Your task to perform on an android device: Open the Play Movies app and select the watchlist tab. Image 0: 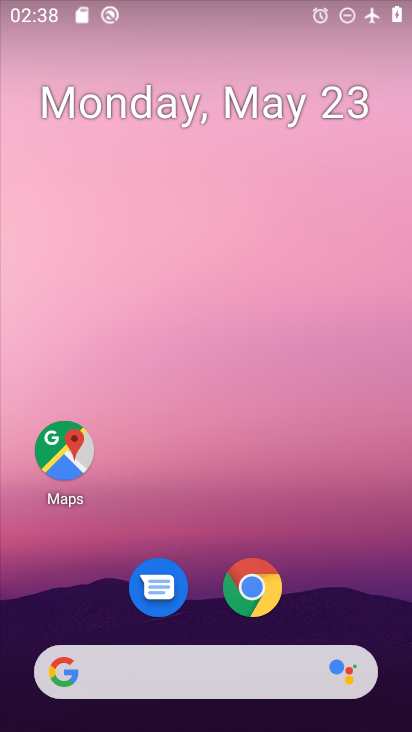
Step 0: drag from (344, 594) to (341, 31)
Your task to perform on an android device: Open the Play Movies app and select the watchlist tab. Image 1: 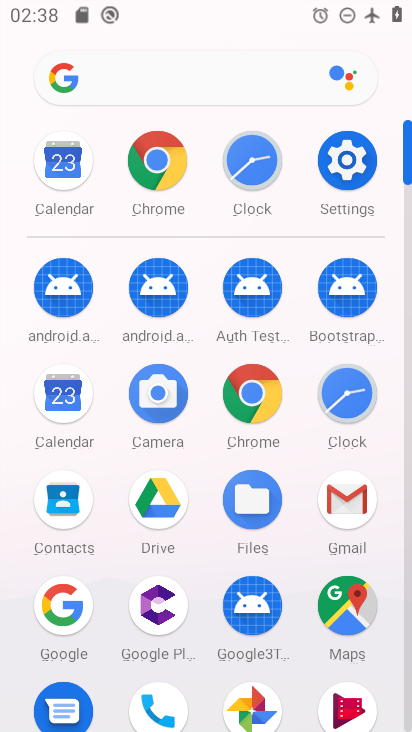
Step 1: click (350, 693)
Your task to perform on an android device: Open the Play Movies app and select the watchlist tab. Image 2: 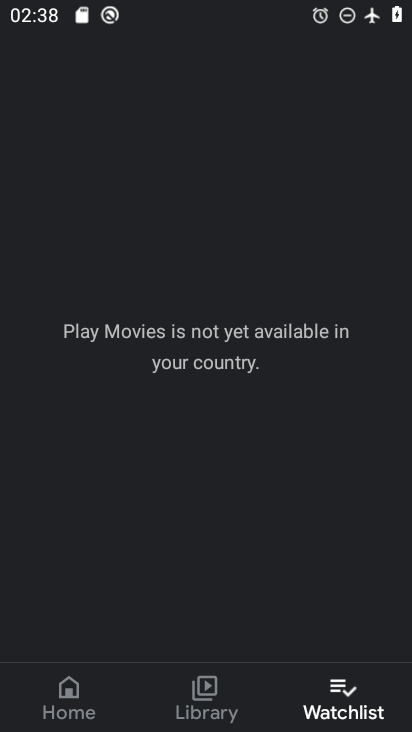
Step 2: click (350, 693)
Your task to perform on an android device: Open the Play Movies app and select the watchlist tab. Image 3: 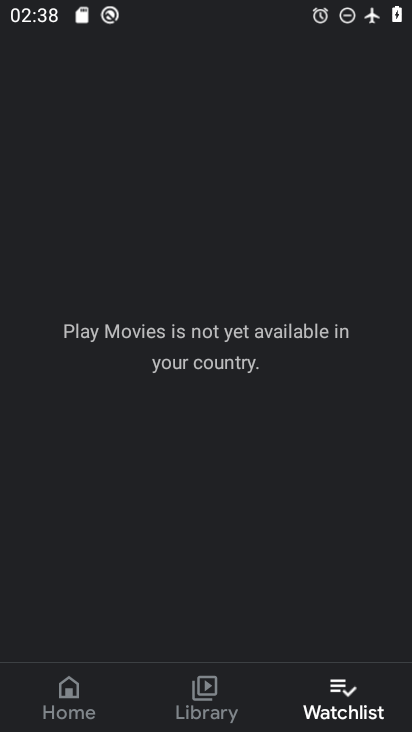
Step 3: task complete